Your task to perform on an android device: Open Wikipedia Image 0: 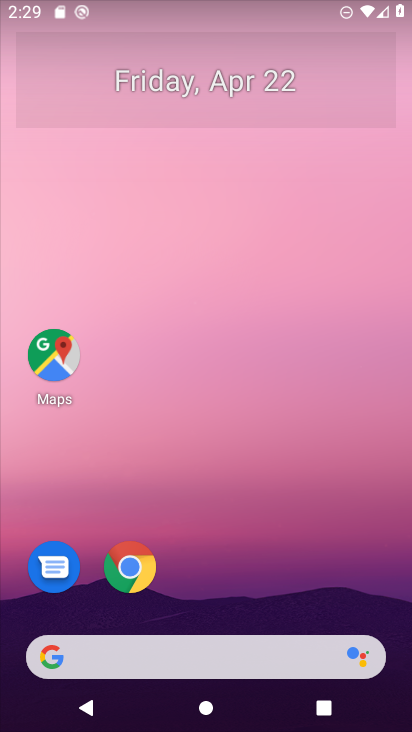
Step 0: click (134, 575)
Your task to perform on an android device: Open Wikipedia Image 1: 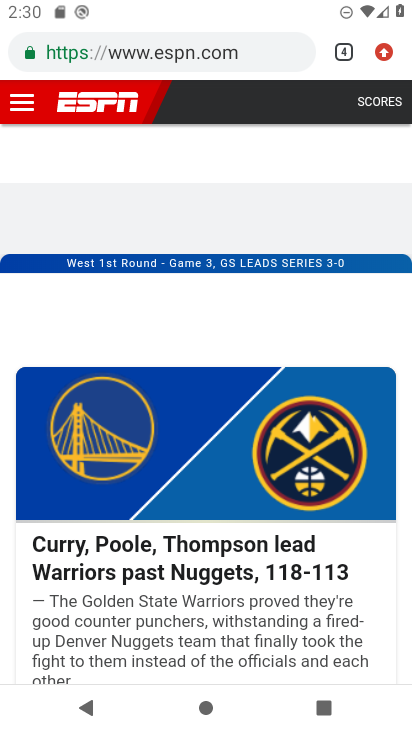
Step 1: click (347, 50)
Your task to perform on an android device: Open Wikipedia Image 2: 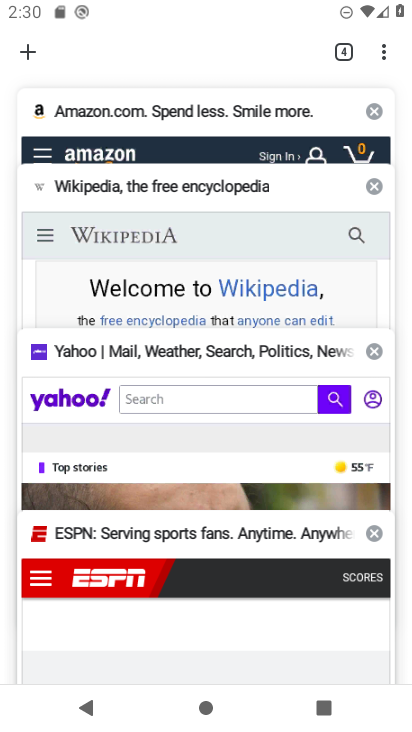
Step 2: click (151, 205)
Your task to perform on an android device: Open Wikipedia Image 3: 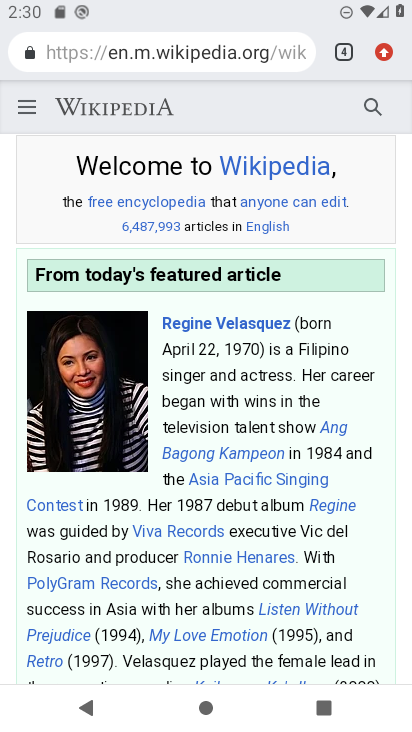
Step 3: task complete